Your task to perform on an android device: Go to eBay Image 0: 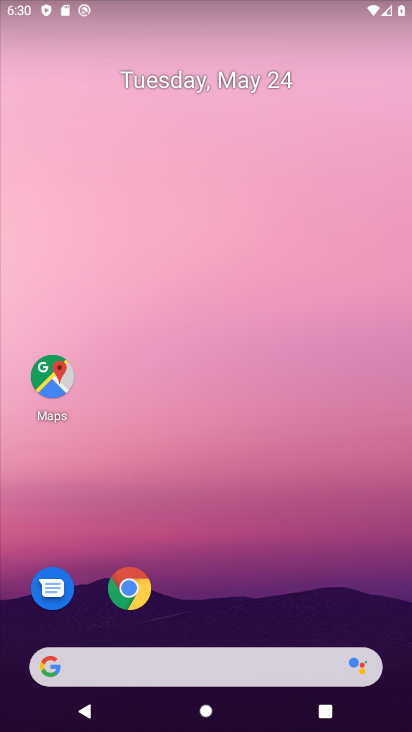
Step 0: drag from (214, 598) to (264, 86)
Your task to perform on an android device: Go to eBay Image 1: 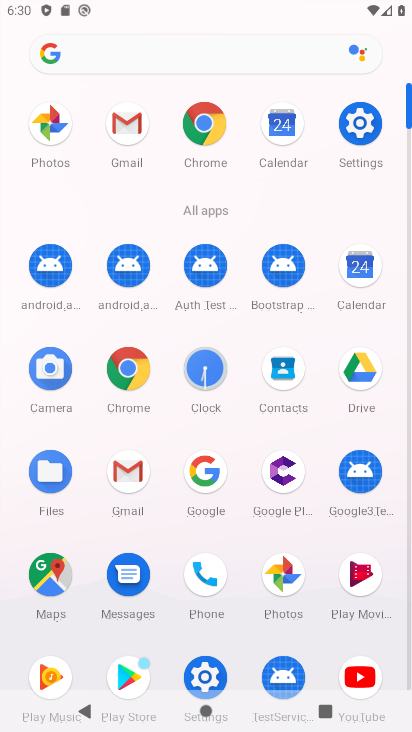
Step 1: click (137, 384)
Your task to perform on an android device: Go to eBay Image 2: 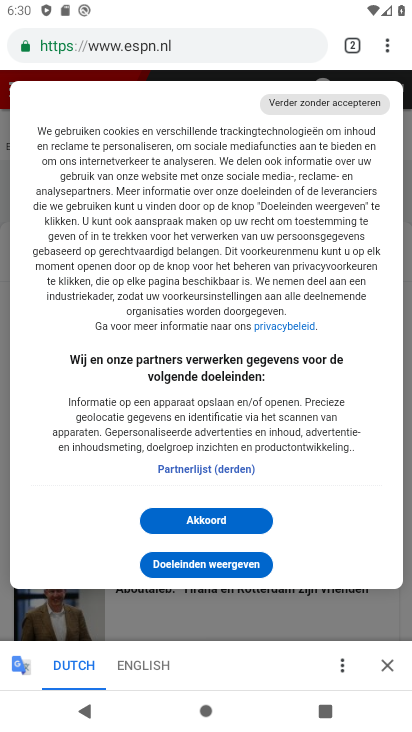
Step 2: click (234, 46)
Your task to perform on an android device: Go to eBay Image 3: 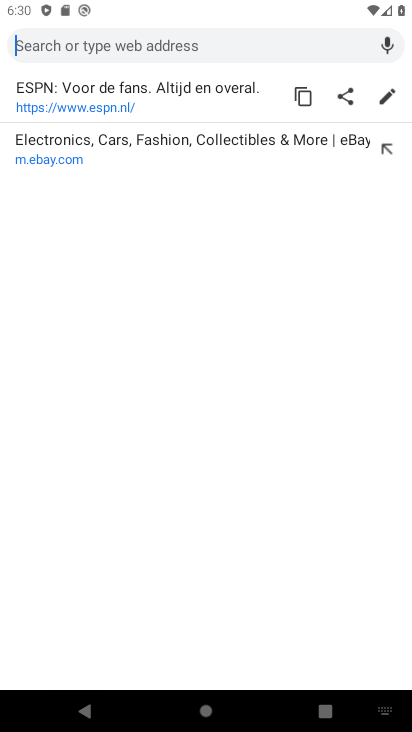
Step 3: click (169, 143)
Your task to perform on an android device: Go to eBay Image 4: 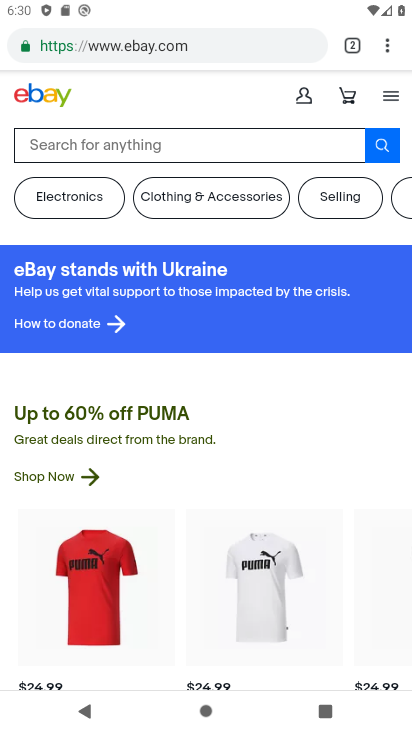
Step 4: task complete